Your task to perform on an android device: toggle translation in the chrome app Image 0: 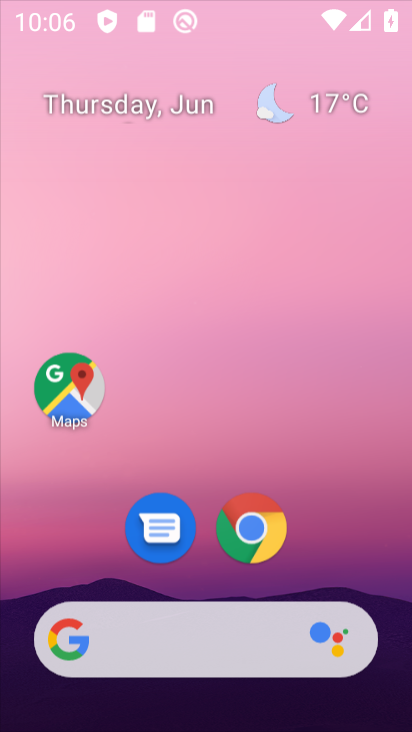
Step 0: click (211, 0)
Your task to perform on an android device: toggle translation in the chrome app Image 1: 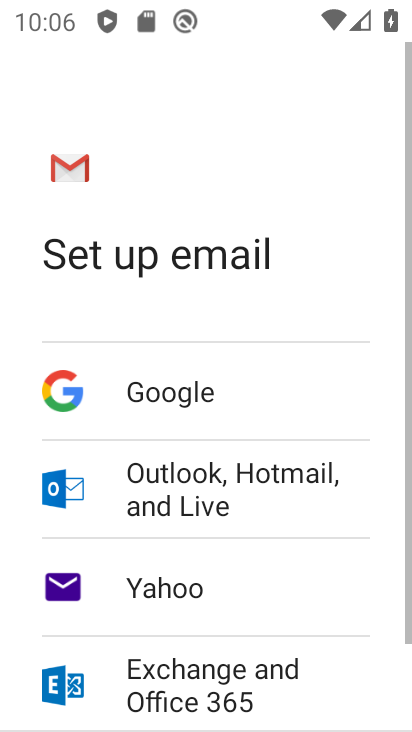
Step 1: press back button
Your task to perform on an android device: toggle translation in the chrome app Image 2: 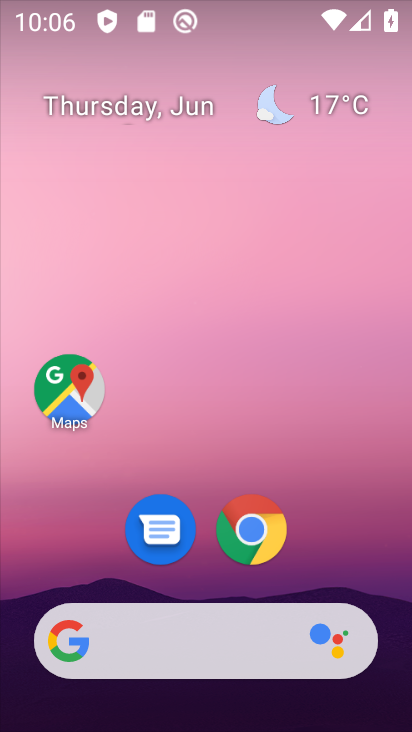
Step 2: click (255, 529)
Your task to perform on an android device: toggle translation in the chrome app Image 3: 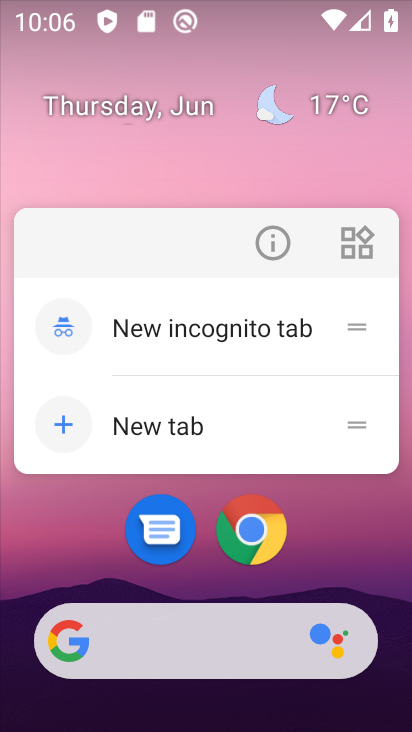
Step 3: click (251, 525)
Your task to perform on an android device: toggle translation in the chrome app Image 4: 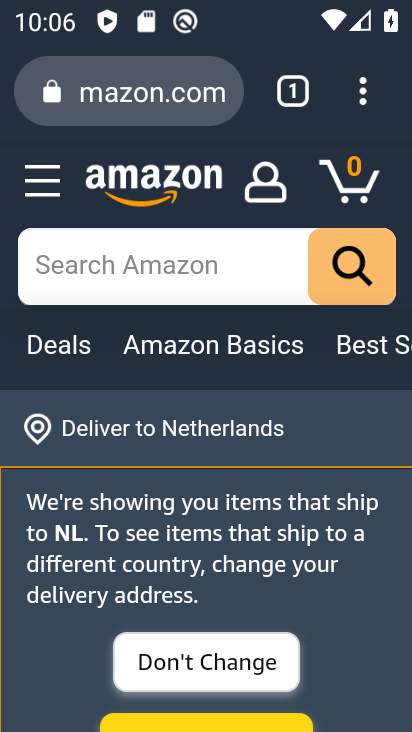
Step 4: click (361, 85)
Your task to perform on an android device: toggle translation in the chrome app Image 5: 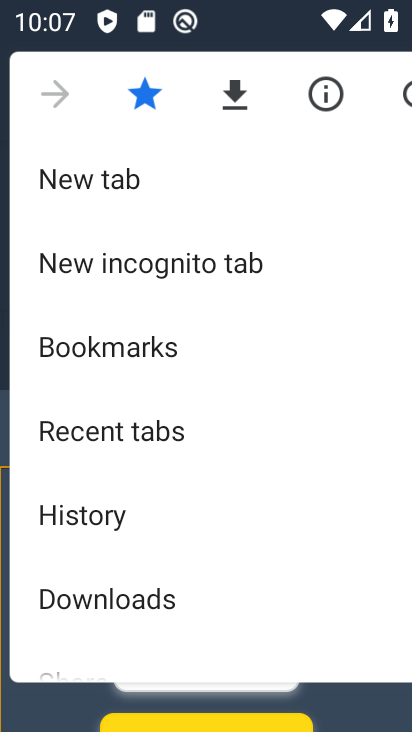
Step 5: drag from (186, 566) to (185, 217)
Your task to perform on an android device: toggle translation in the chrome app Image 6: 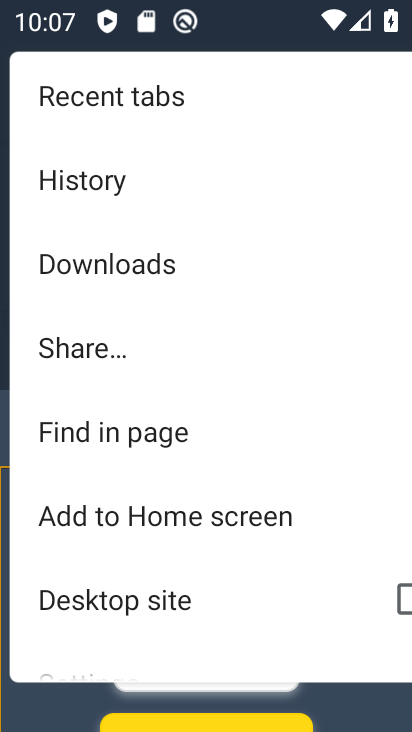
Step 6: drag from (154, 595) to (169, 210)
Your task to perform on an android device: toggle translation in the chrome app Image 7: 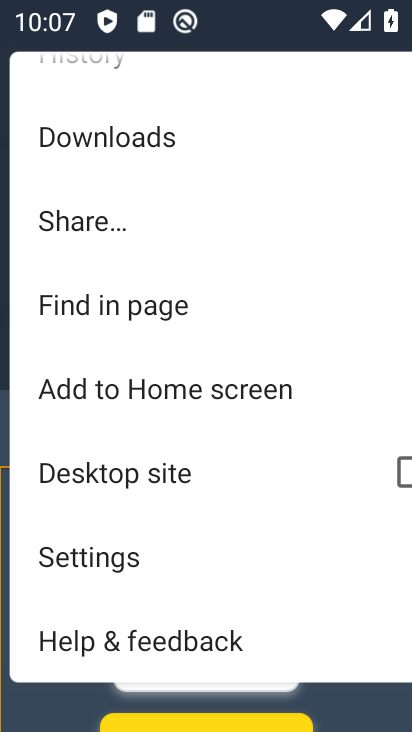
Step 7: click (98, 553)
Your task to perform on an android device: toggle translation in the chrome app Image 8: 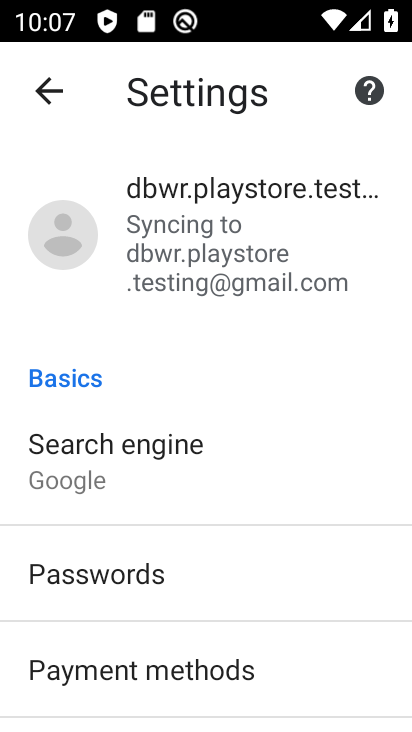
Step 8: drag from (194, 397) to (192, 254)
Your task to perform on an android device: toggle translation in the chrome app Image 9: 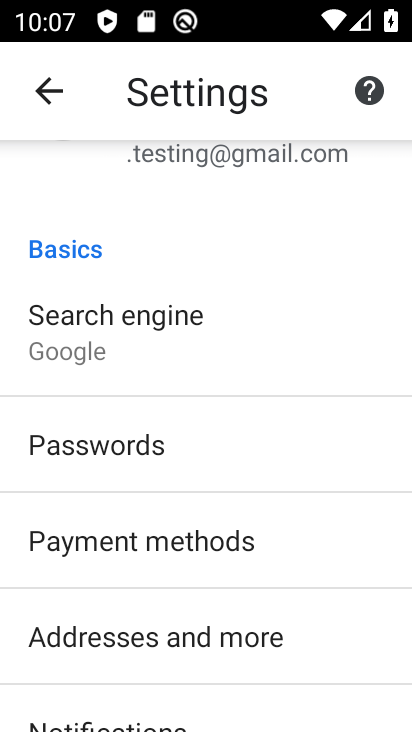
Step 9: drag from (172, 662) to (227, 263)
Your task to perform on an android device: toggle translation in the chrome app Image 10: 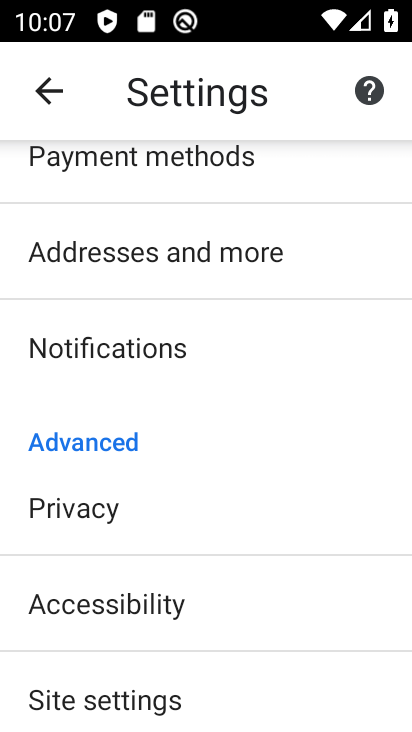
Step 10: drag from (206, 622) to (184, 372)
Your task to perform on an android device: toggle translation in the chrome app Image 11: 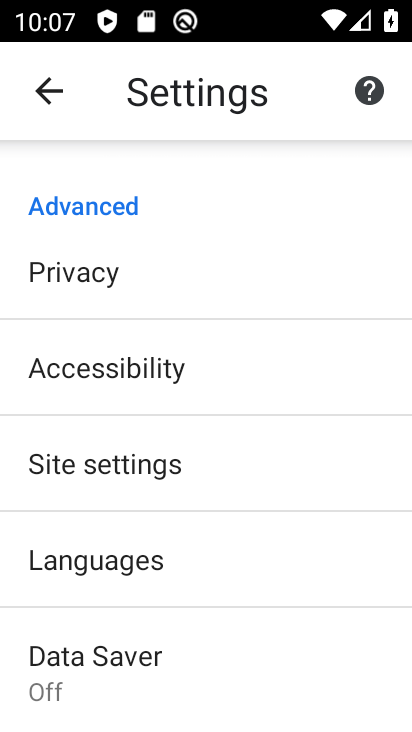
Step 11: click (145, 555)
Your task to perform on an android device: toggle translation in the chrome app Image 12: 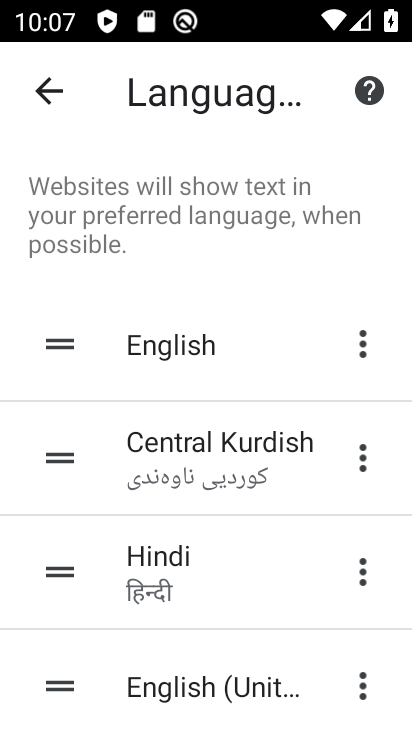
Step 12: drag from (219, 700) to (251, 136)
Your task to perform on an android device: toggle translation in the chrome app Image 13: 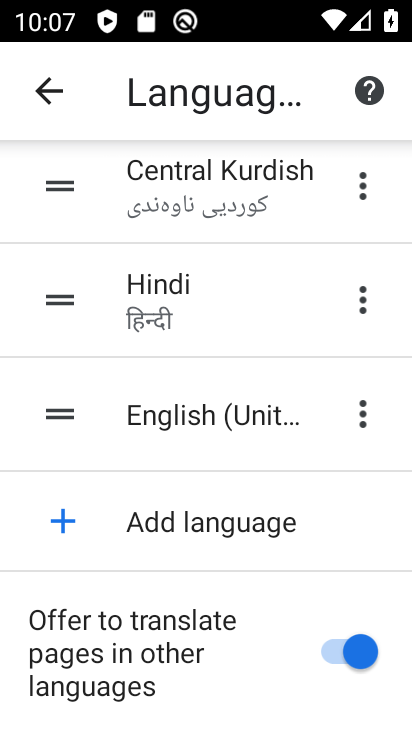
Step 13: click (352, 655)
Your task to perform on an android device: toggle translation in the chrome app Image 14: 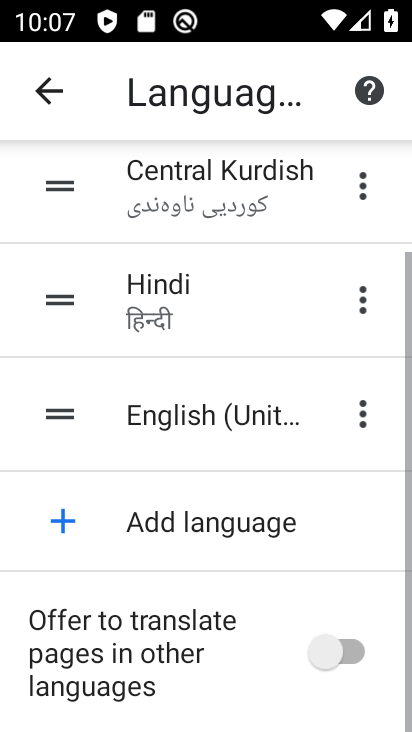
Step 14: task complete